Your task to perform on an android device: show emergency info Image 0: 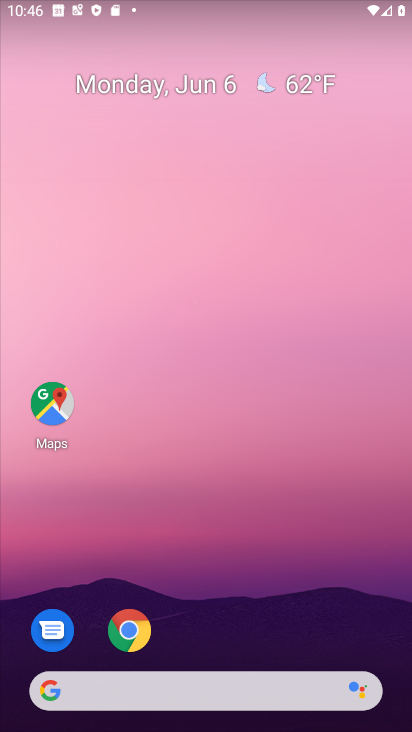
Step 0: drag from (240, 560) to (269, 56)
Your task to perform on an android device: show emergency info Image 1: 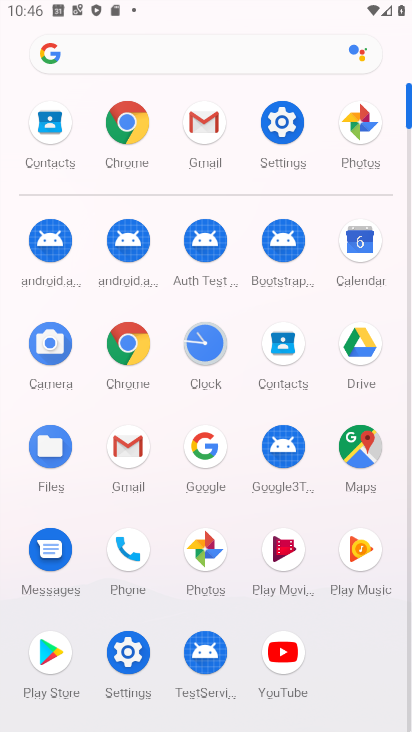
Step 1: click (283, 128)
Your task to perform on an android device: show emergency info Image 2: 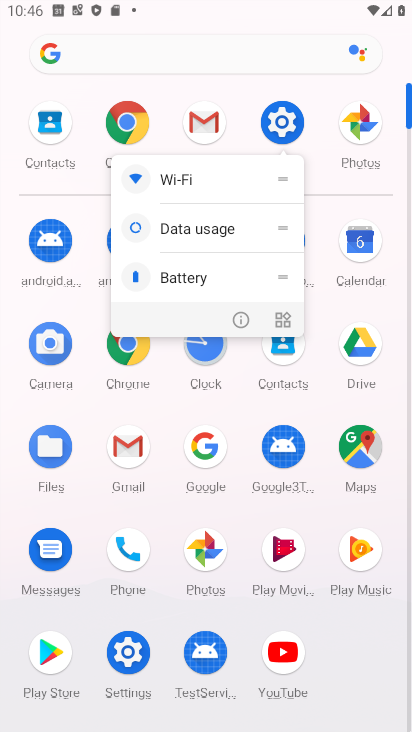
Step 2: click (275, 135)
Your task to perform on an android device: show emergency info Image 3: 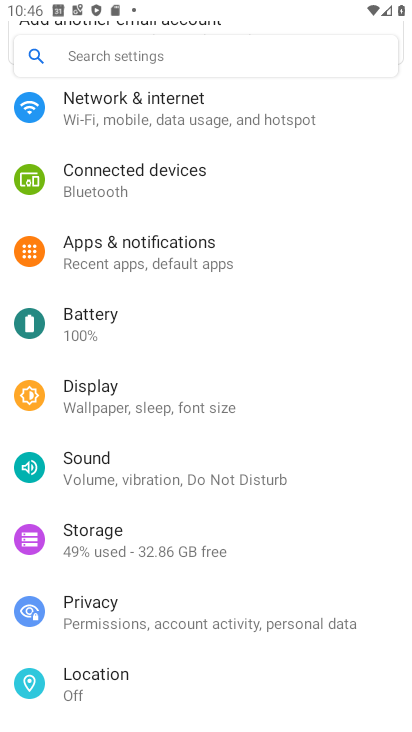
Step 3: drag from (271, 165) to (300, 534)
Your task to perform on an android device: show emergency info Image 4: 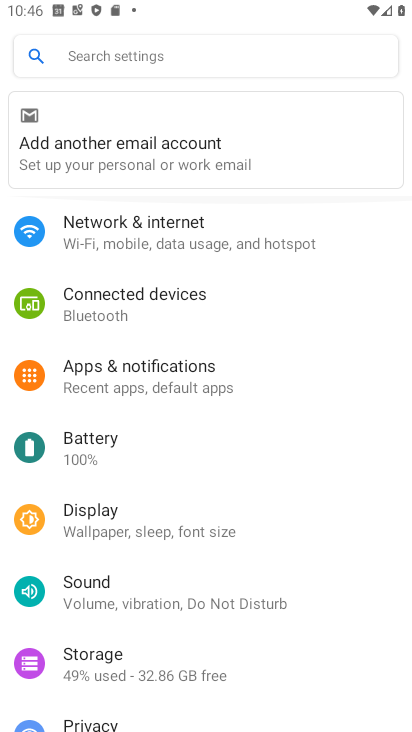
Step 4: drag from (300, 535) to (309, 273)
Your task to perform on an android device: show emergency info Image 5: 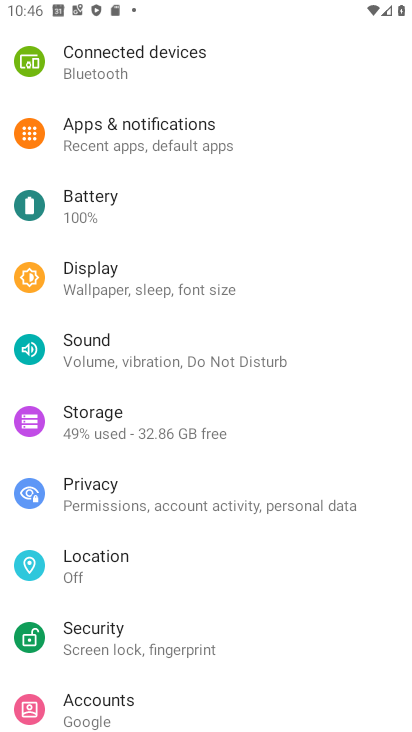
Step 5: drag from (268, 628) to (320, 207)
Your task to perform on an android device: show emergency info Image 6: 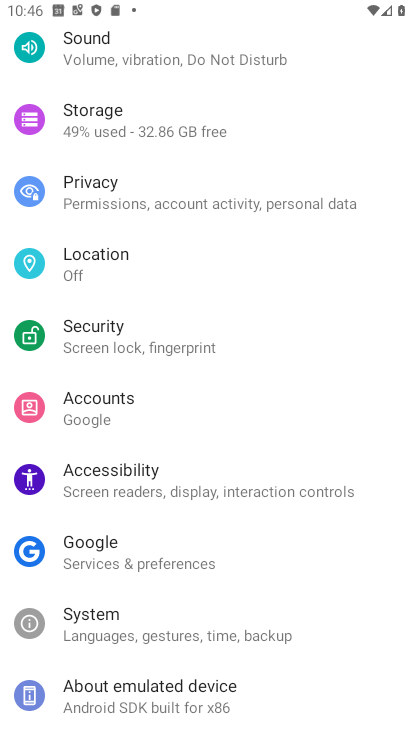
Step 6: drag from (268, 573) to (304, 265)
Your task to perform on an android device: show emergency info Image 7: 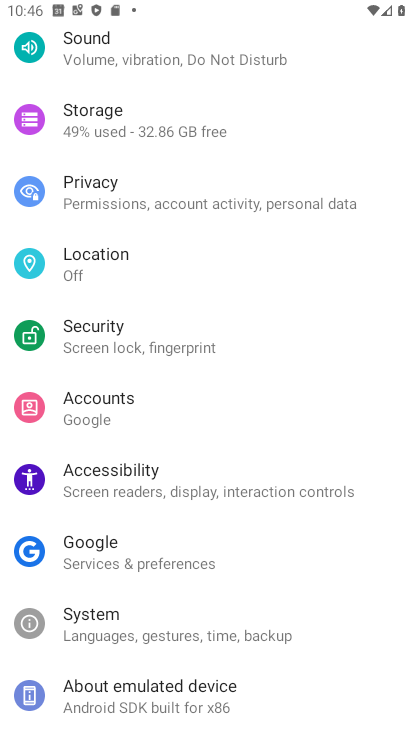
Step 7: click (214, 686)
Your task to perform on an android device: show emergency info Image 8: 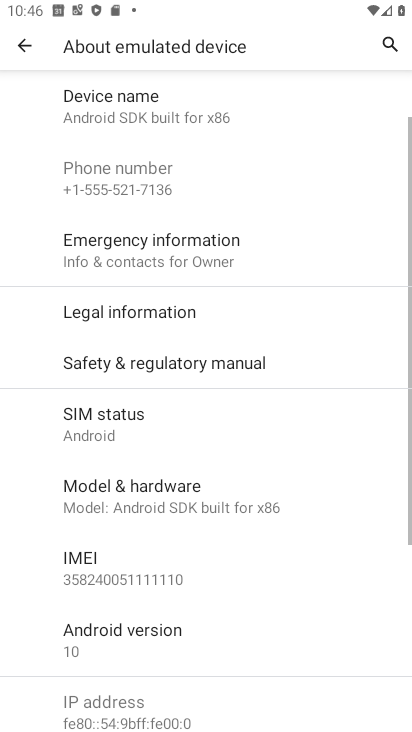
Step 8: click (220, 260)
Your task to perform on an android device: show emergency info Image 9: 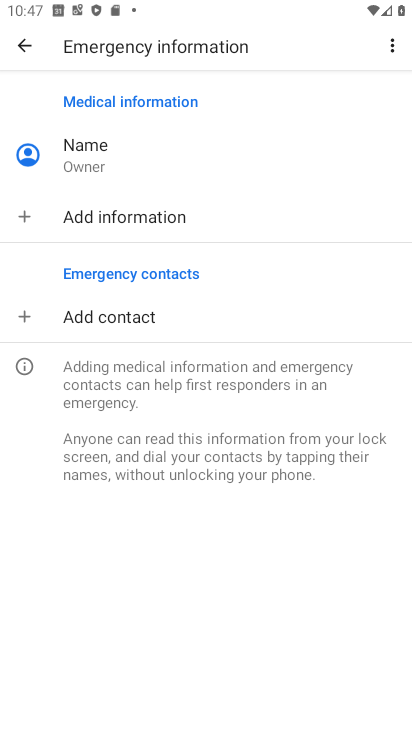
Step 9: task complete